Your task to perform on an android device: turn off location history Image 0: 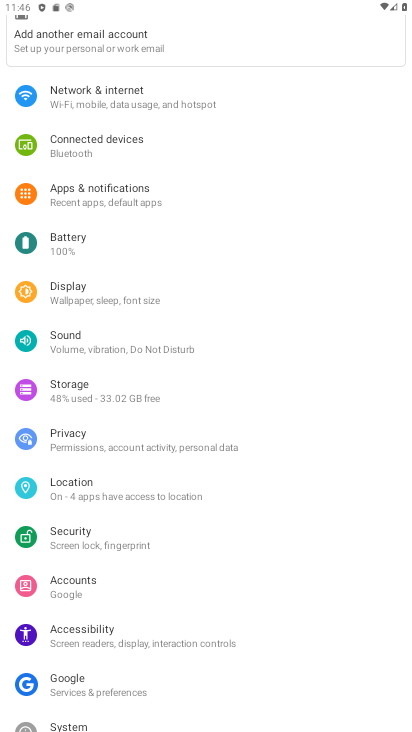
Step 0: click (100, 491)
Your task to perform on an android device: turn off location history Image 1: 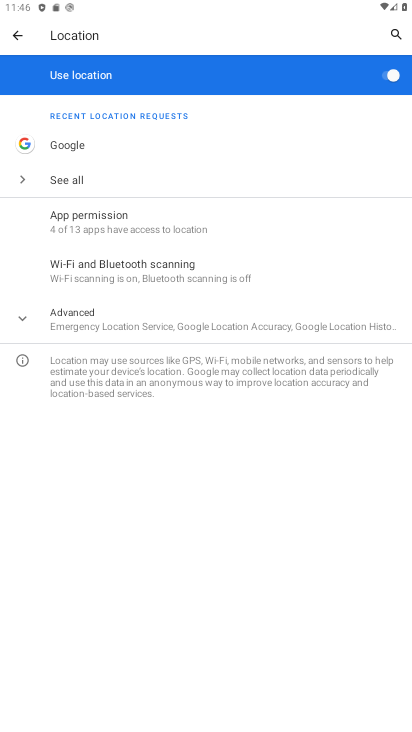
Step 1: click (377, 70)
Your task to perform on an android device: turn off location history Image 2: 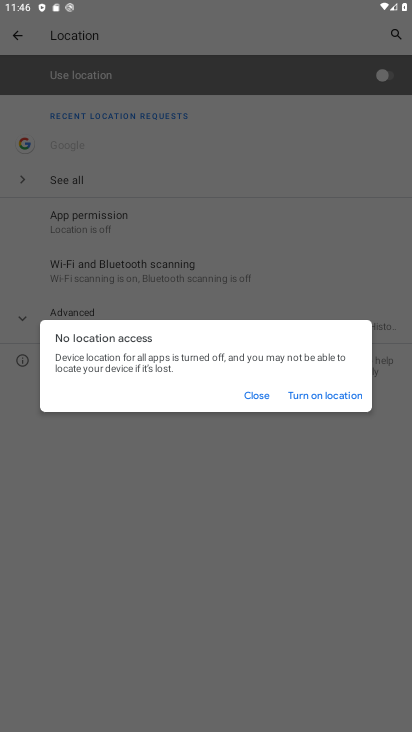
Step 2: click (263, 398)
Your task to perform on an android device: turn off location history Image 3: 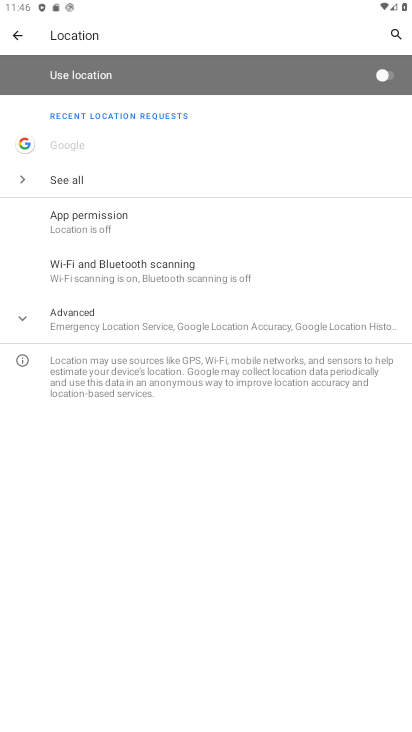
Step 3: click (107, 329)
Your task to perform on an android device: turn off location history Image 4: 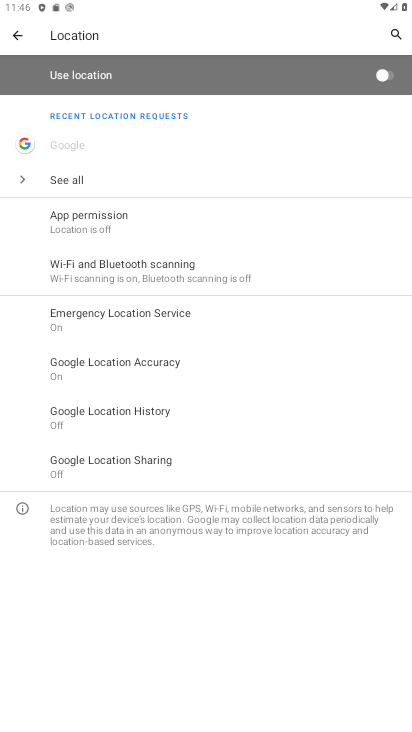
Step 4: click (152, 421)
Your task to perform on an android device: turn off location history Image 5: 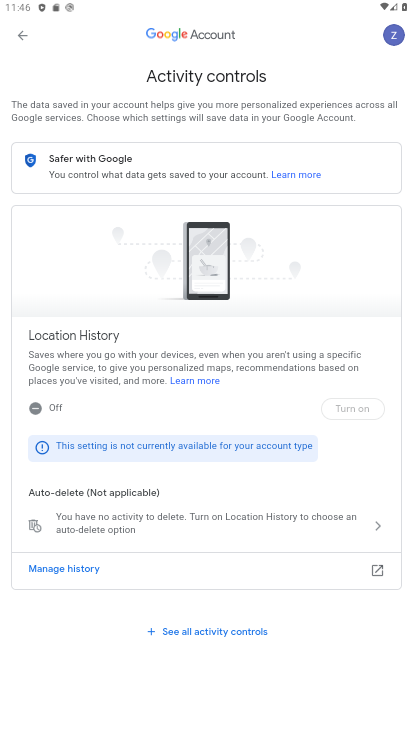
Step 5: click (348, 414)
Your task to perform on an android device: turn off location history Image 6: 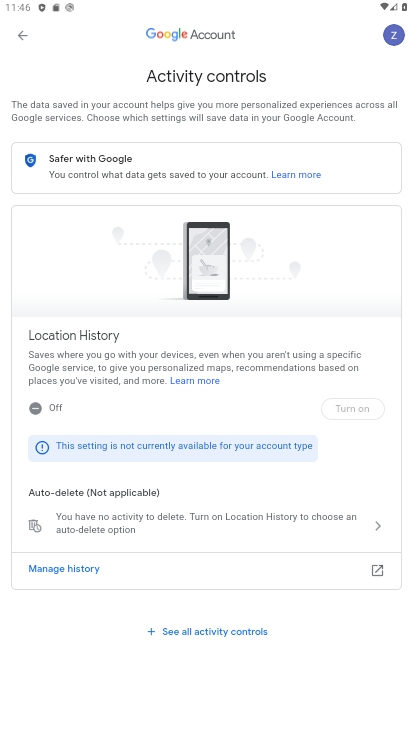
Step 6: click (208, 457)
Your task to perform on an android device: turn off location history Image 7: 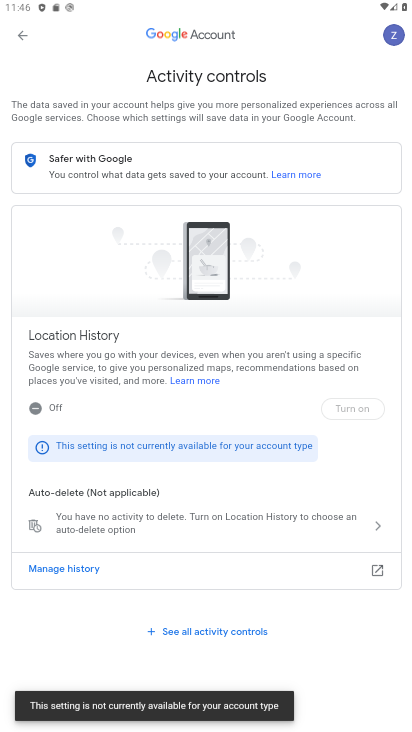
Step 7: click (144, 441)
Your task to perform on an android device: turn off location history Image 8: 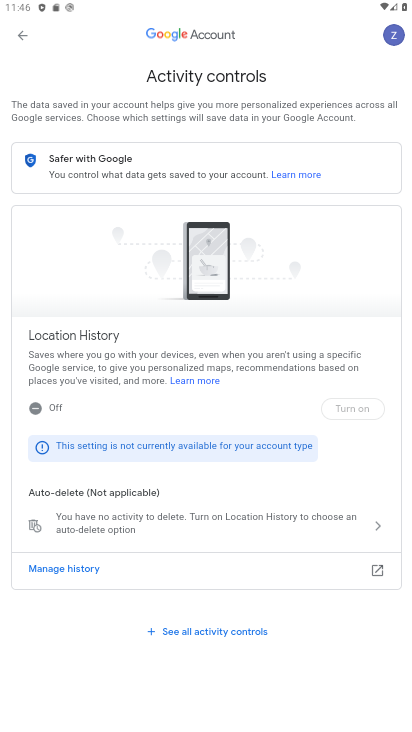
Step 8: task complete